Your task to perform on an android device: toggle improve location accuracy Image 0: 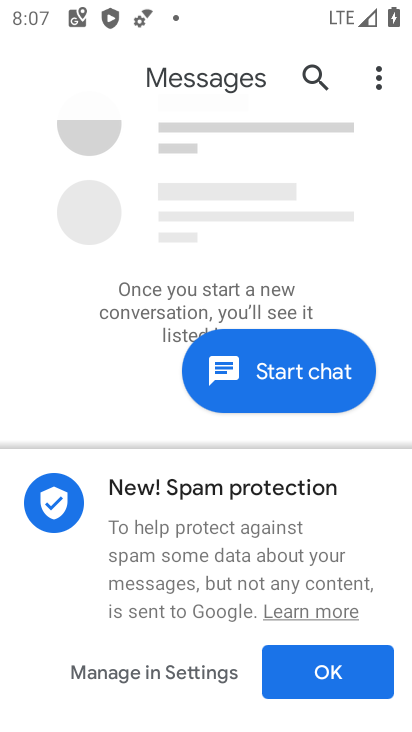
Step 0: press home button
Your task to perform on an android device: toggle improve location accuracy Image 1: 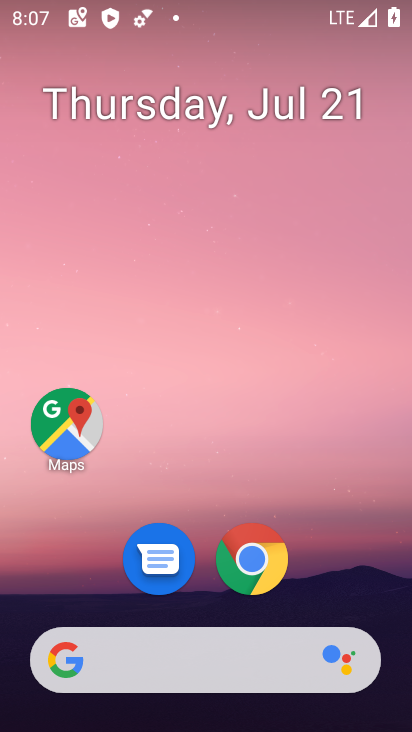
Step 1: drag from (248, 606) to (410, 160)
Your task to perform on an android device: toggle improve location accuracy Image 2: 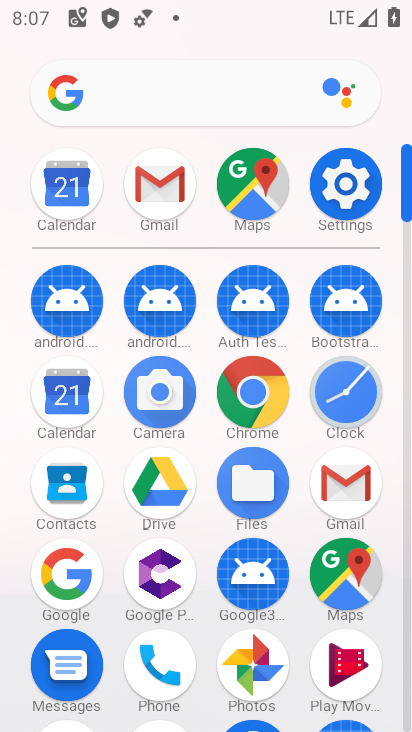
Step 2: click (335, 209)
Your task to perform on an android device: toggle improve location accuracy Image 3: 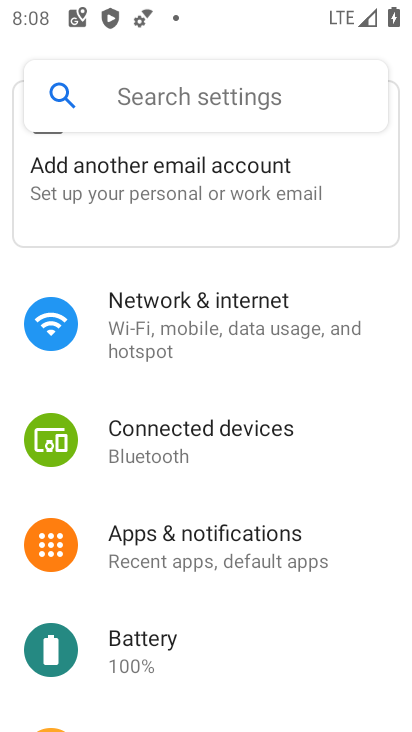
Step 3: drag from (187, 554) to (265, 84)
Your task to perform on an android device: toggle improve location accuracy Image 4: 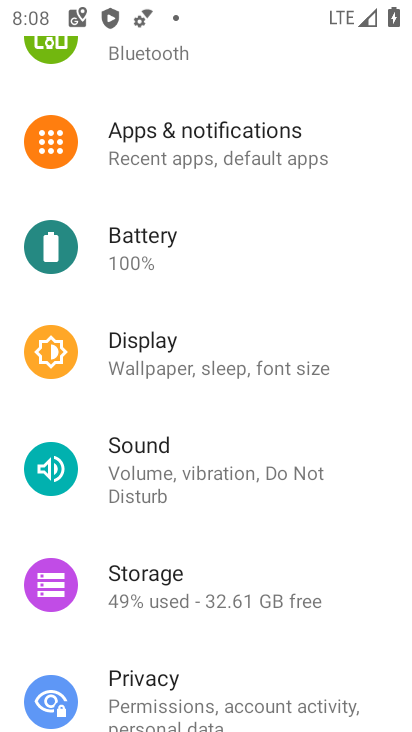
Step 4: drag from (161, 600) to (199, 312)
Your task to perform on an android device: toggle improve location accuracy Image 5: 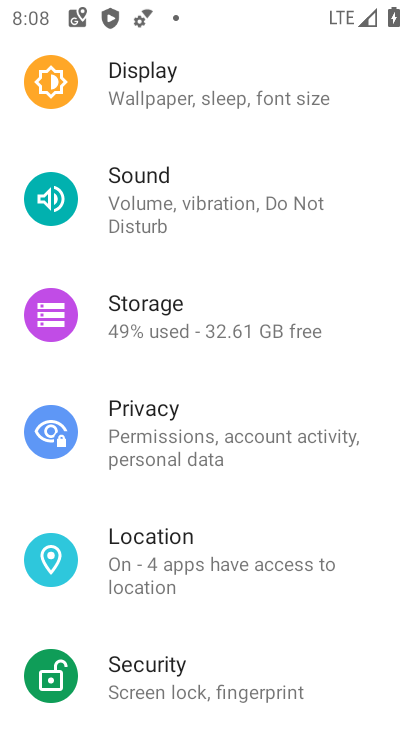
Step 5: click (179, 566)
Your task to perform on an android device: toggle improve location accuracy Image 6: 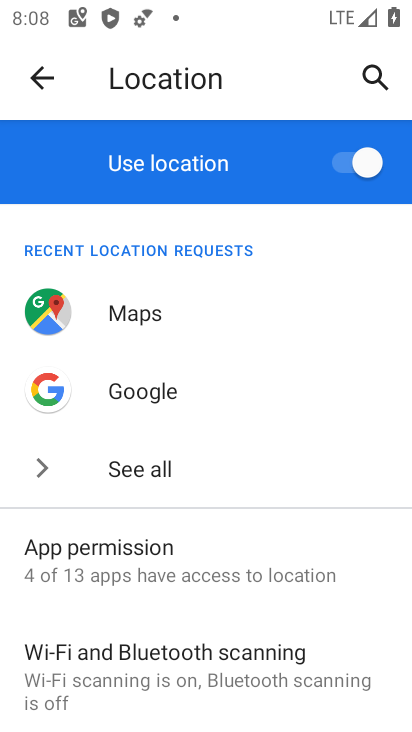
Step 6: drag from (175, 501) to (181, 325)
Your task to perform on an android device: toggle improve location accuracy Image 7: 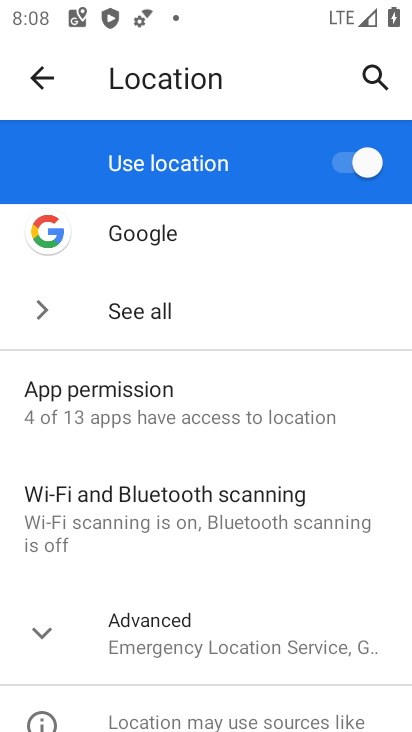
Step 7: click (147, 643)
Your task to perform on an android device: toggle improve location accuracy Image 8: 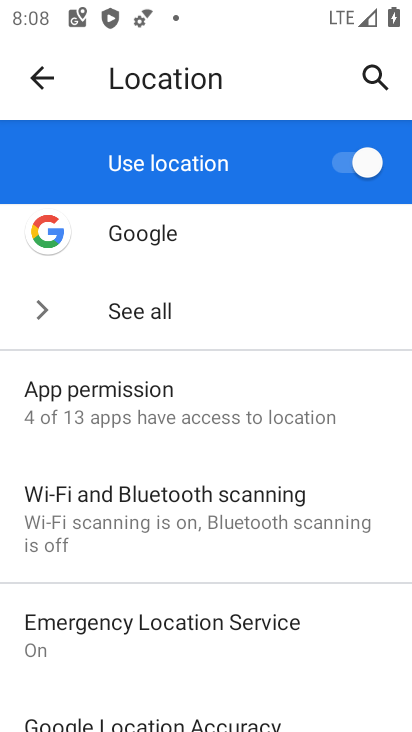
Step 8: drag from (194, 605) to (244, 297)
Your task to perform on an android device: toggle improve location accuracy Image 9: 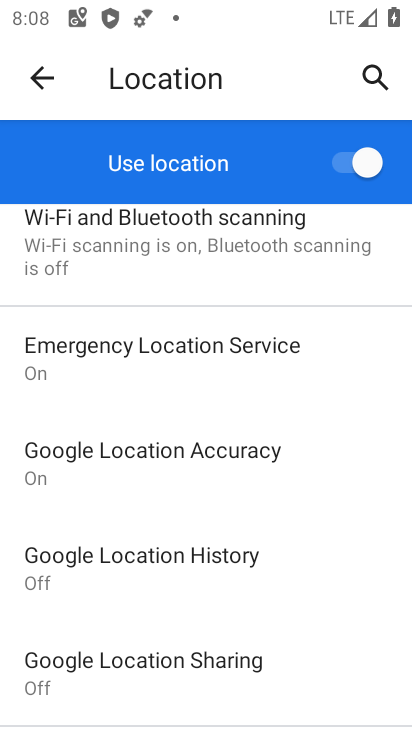
Step 9: click (186, 465)
Your task to perform on an android device: toggle improve location accuracy Image 10: 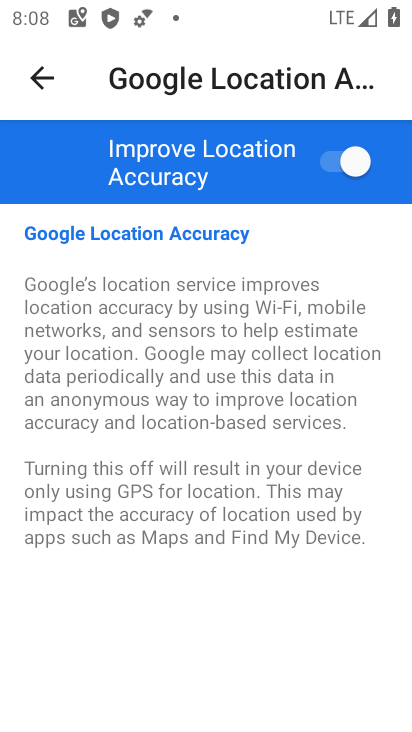
Step 10: click (335, 169)
Your task to perform on an android device: toggle improve location accuracy Image 11: 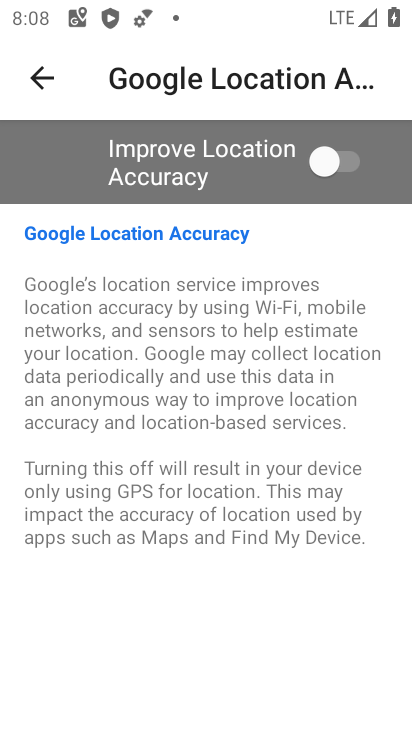
Step 11: task complete